Your task to perform on an android device: Do I have any events tomorrow? Image 0: 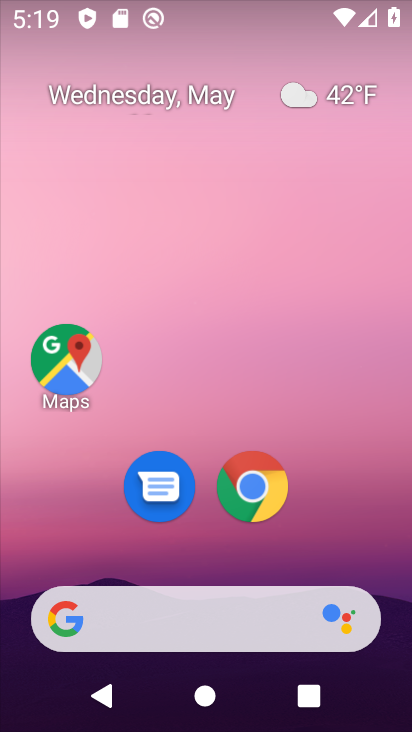
Step 0: drag from (257, 564) to (289, 10)
Your task to perform on an android device: Do I have any events tomorrow? Image 1: 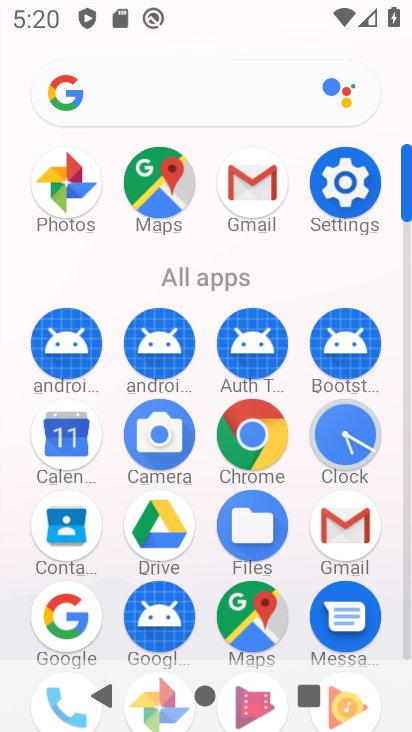
Step 1: drag from (203, 538) to (218, 155)
Your task to perform on an android device: Do I have any events tomorrow? Image 2: 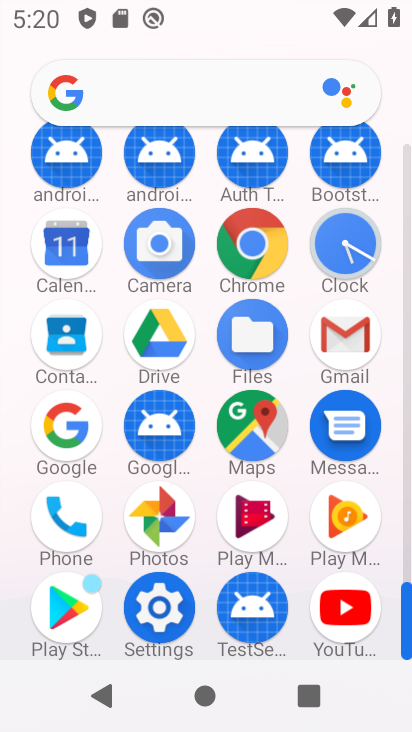
Step 2: drag from (267, 337) to (271, 516)
Your task to perform on an android device: Do I have any events tomorrow? Image 3: 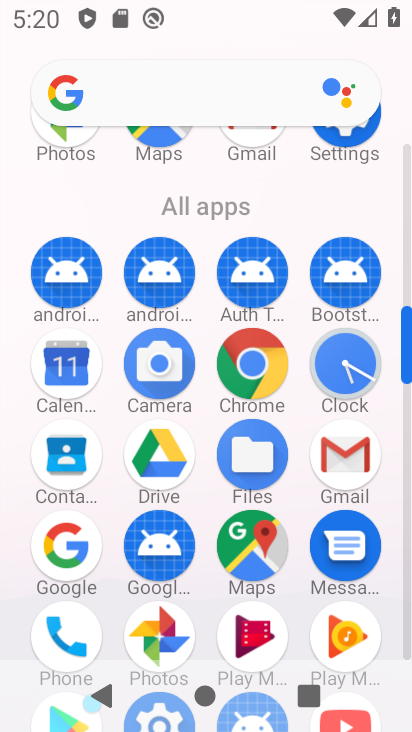
Step 3: click (73, 360)
Your task to perform on an android device: Do I have any events tomorrow? Image 4: 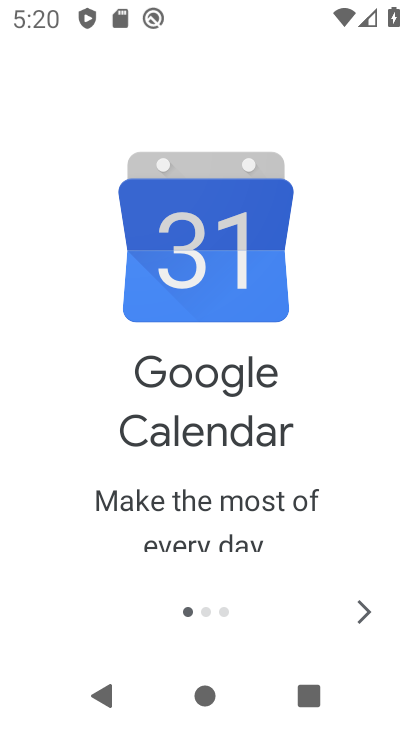
Step 4: click (374, 602)
Your task to perform on an android device: Do I have any events tomorrow? Image 5: 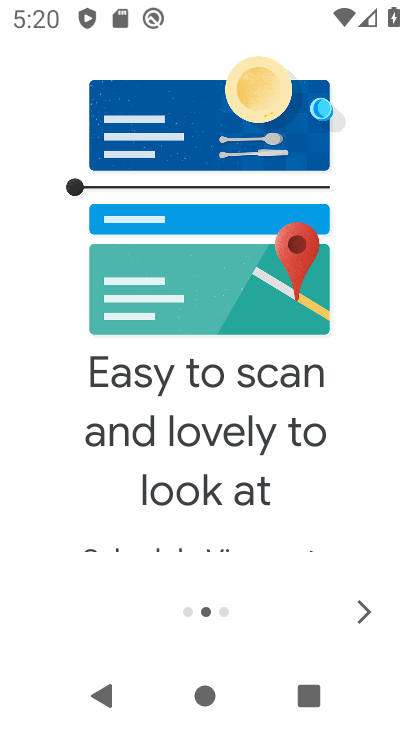
Step 5: click (374, 605)
Your task to perform on an android device: Do I have any events tomorrow? Image 6: 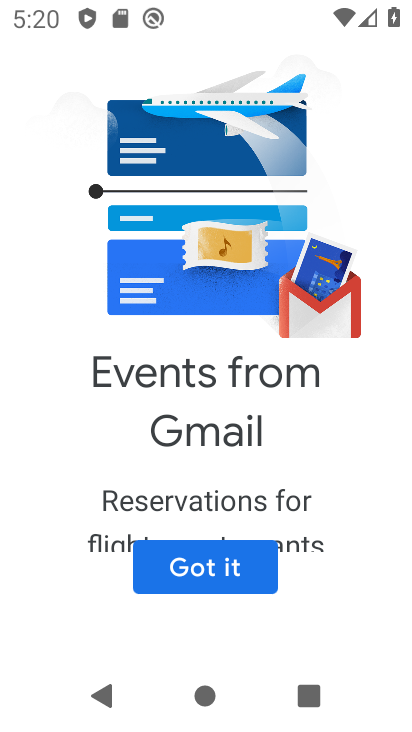
Step 6: click (229, 578)
Your task to perform on an android device: Do I have any events tomorrow? Image 7: 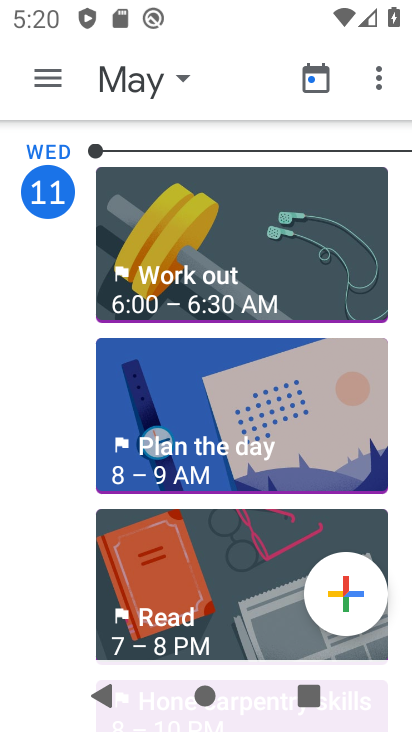
Step 7: click (54, 74)
Your task to perform on an android device: Do I have any events tomorrow? Image 8: 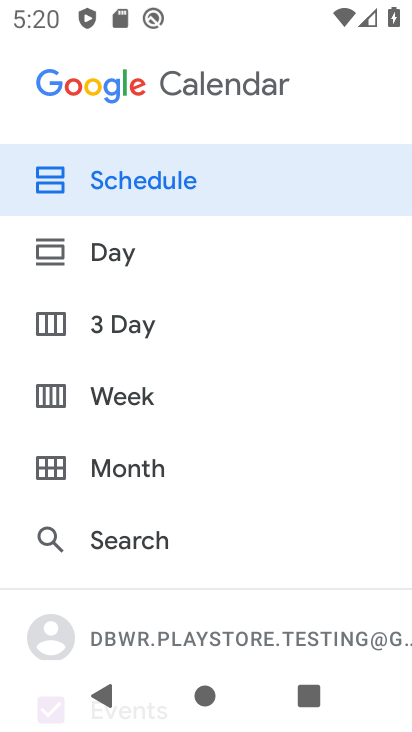
Step 8: drag from (213, 531) to (263, 197)
Your task to perform on an android device: Do I have any events tomorrow? Image 9: 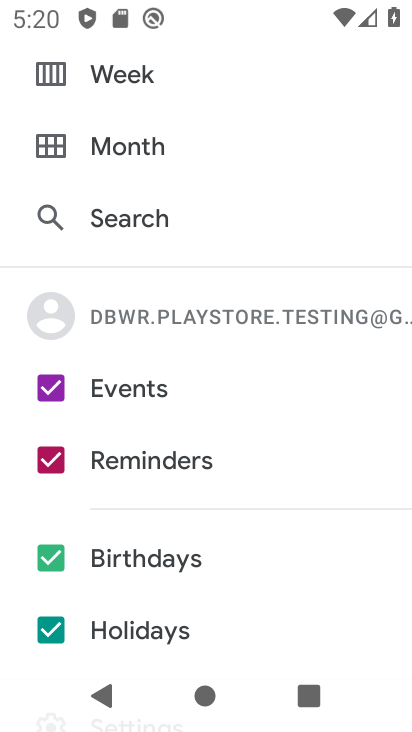
Step 9: click (189, 475)
Your task to perform on an android device: Do I have any events tomorrow? Image 10: 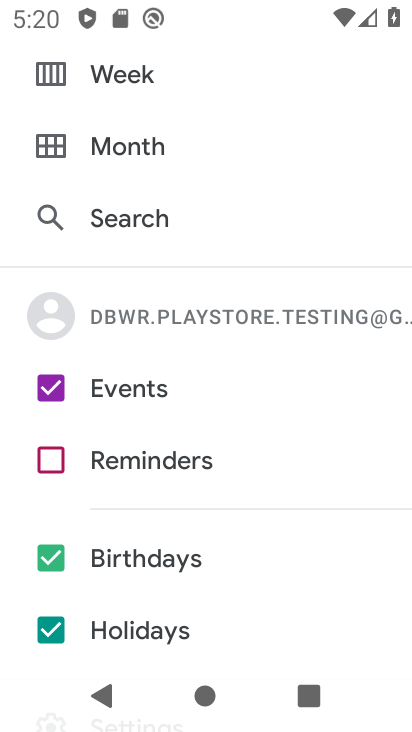
Step 10: click (158, 568)
Your task to perform on an android device: Do I have any events tomorrow? Image 11: 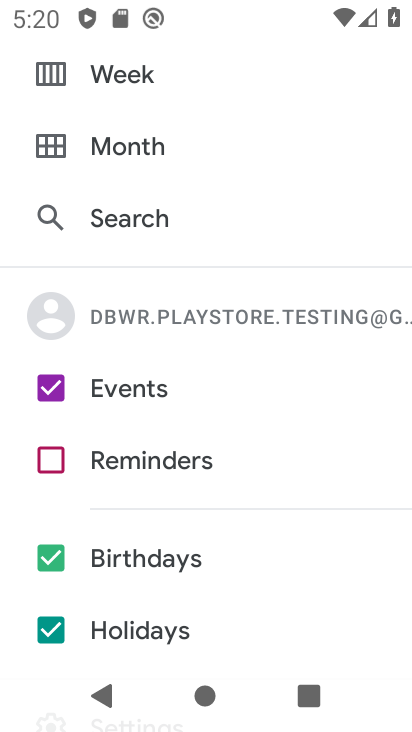
Step 11: click (138, 642)
Your task to perform on an android device: Do I have any events tomorrow? Image 12: 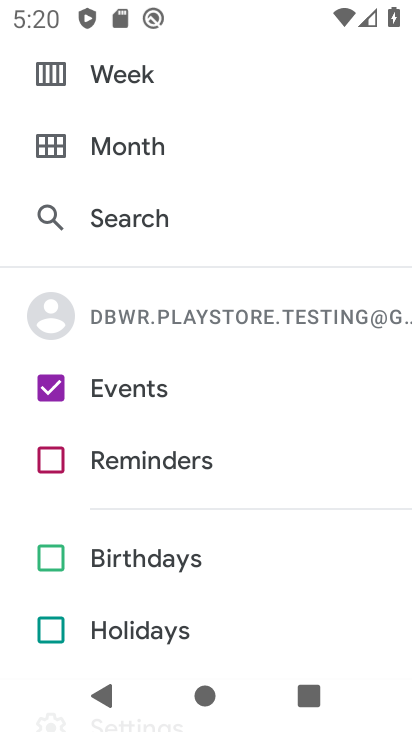
Step 12: drag from (160, 592) to (140, 690)
Your task to perform on an android device: Do I have any events tomorrow? Image 13: 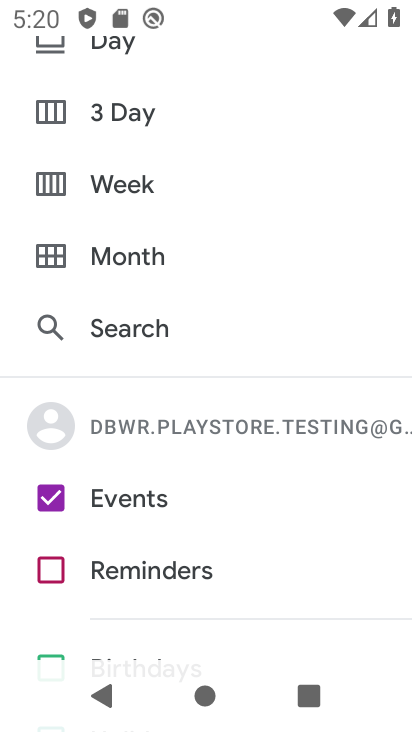
Step 13: drag from (179, 268) to (178, 481)
Your task to perform on an android device: Do I have any events tomorrow? Image 14: 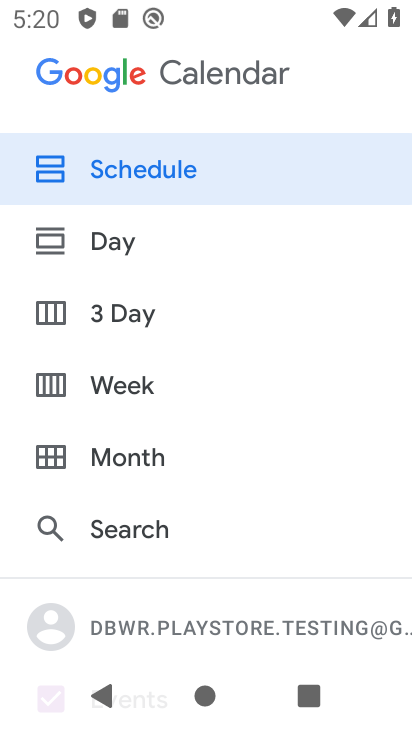
Step 14: click (147, 324)
Your task to perform on an android device: Do I have any events tomorrow? Image 15: 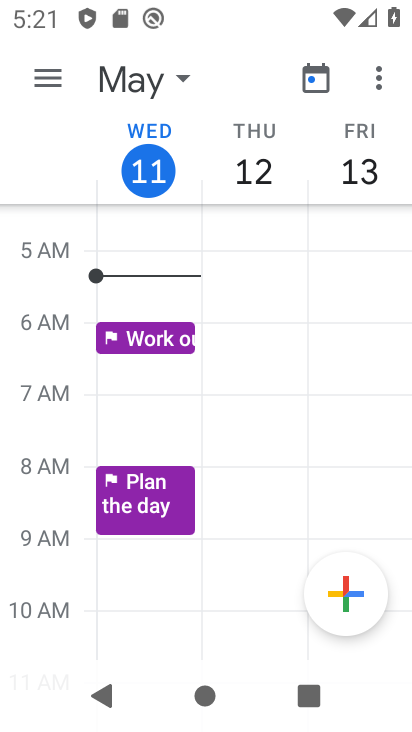
Step 15: task complete